Your task to perform on an android device: turn off location Image 0: 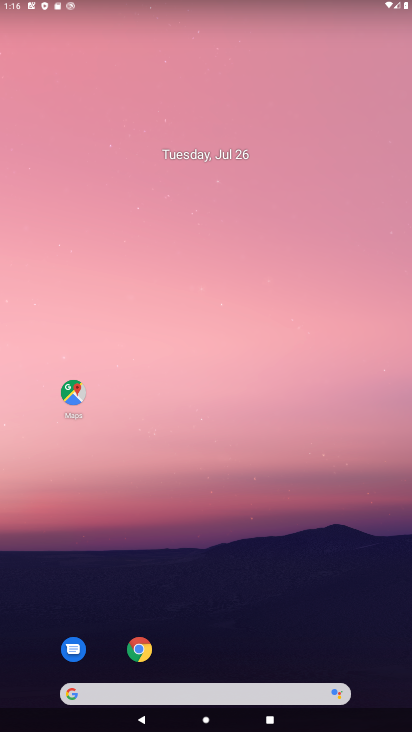
Step 0: drag from (367, 644) to (144, 7)
Your task to perform on an android device: turn off location Image 1: 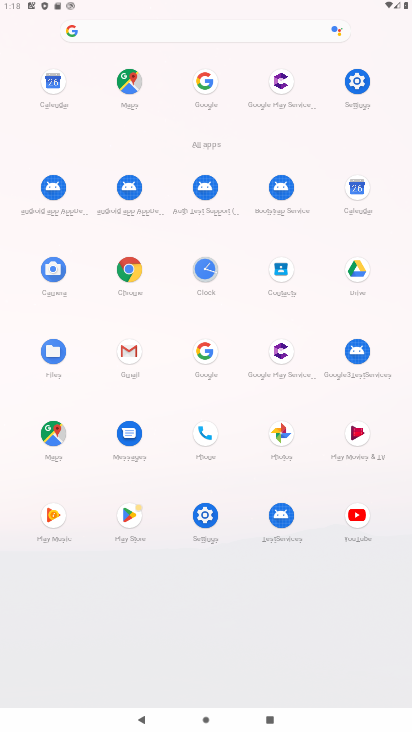
Step 1: click (191, 515)
Your task to perform on an android device: turn off location Image 2: 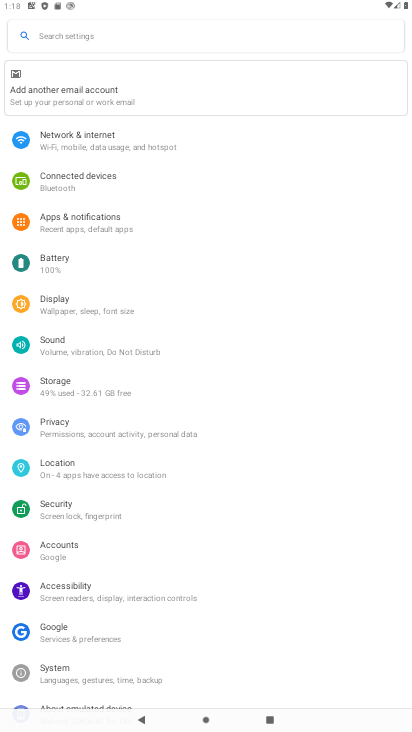
Step 2: click (75, 461)
Your task to perform on an android device: turn off location Image 3: 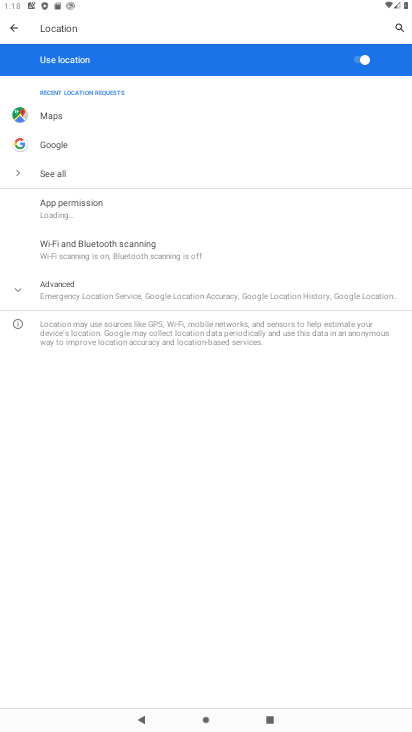
Step 3: click (345, 60)
Your task to perform on an android device: turn off location Image 4: 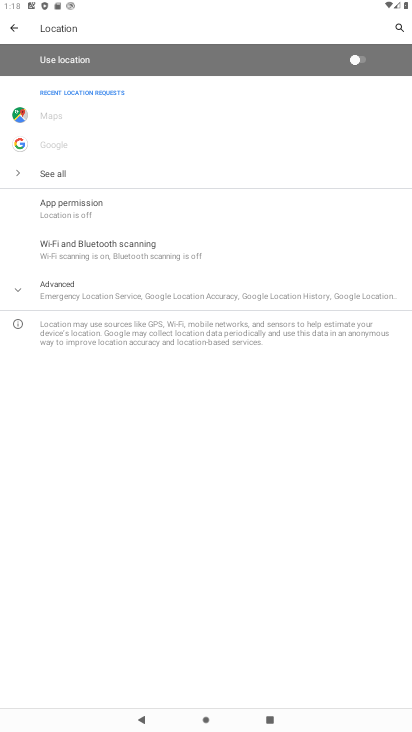
Step 4: task complete